Your task to perform on an android device: all mails in gmail Image 0: 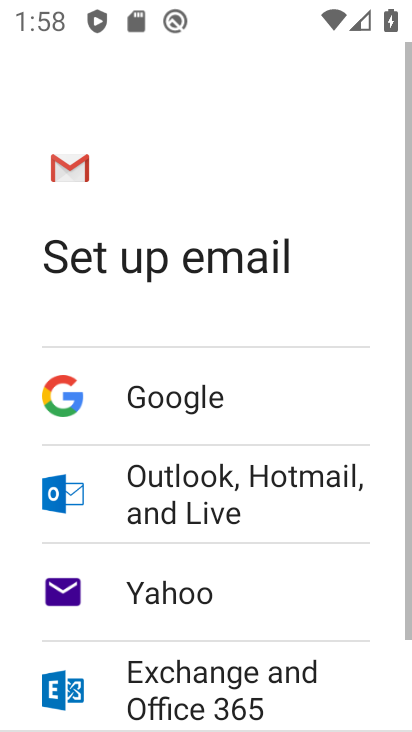
Step 0: press home button
Your task to perform on an android device: all mails in gmail Image 1: 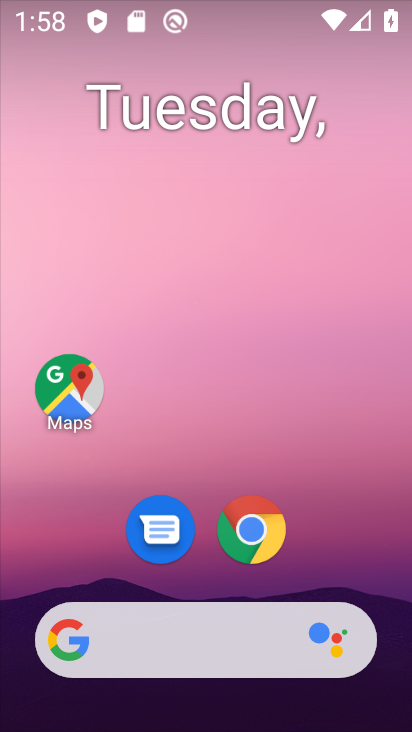
Step 1: drag from (207, 538) to (221, 4)
Your task to perform on an android device: all mails in gmail Image 2: 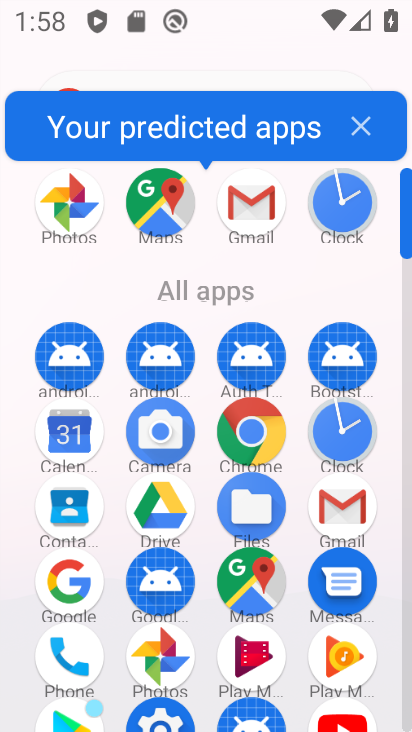
Step 2: click (344, 505)
Your task to perform on an android device: all mails in gmail Image 3: 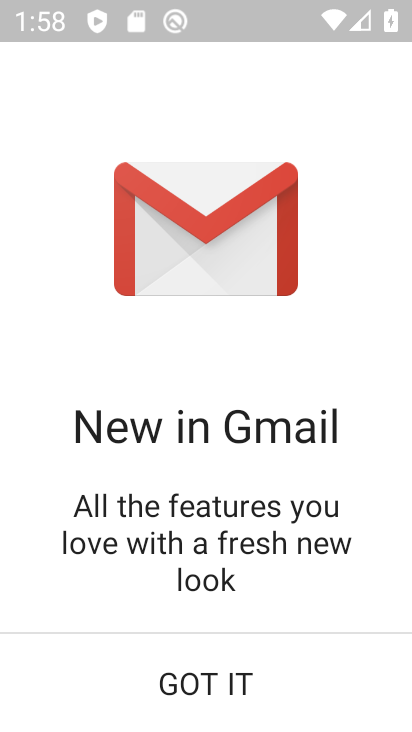
Step 3: click (221, 663)
Your task to perform on an android device: all mails in gmail Image 4: 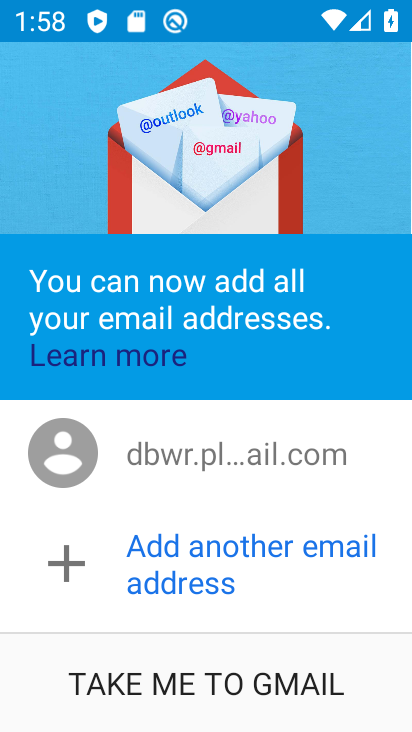
Step 4: click (146, 680)
Your task to perform on an android device: all mails in gmail Image 5: 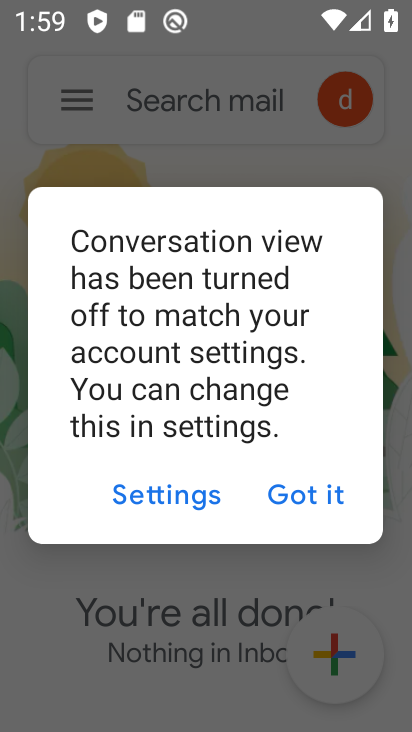
Step 5: click (270, 498)
Your task to perform on an android device: all mails in gmail Image 6: 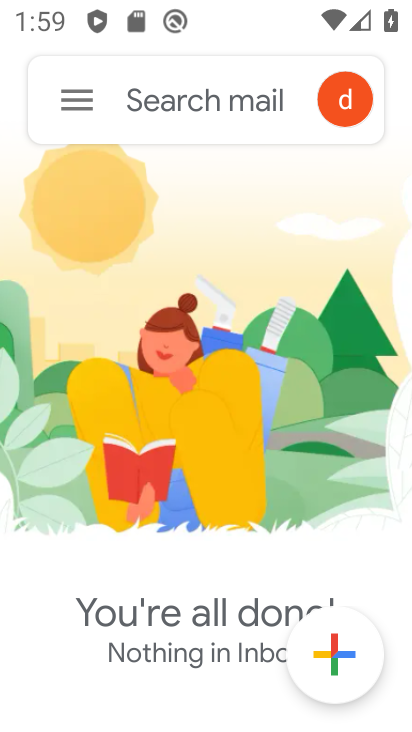
Step 6: click (75, 100)
Your task to perform on an android device: all mails in gmail Image 7: 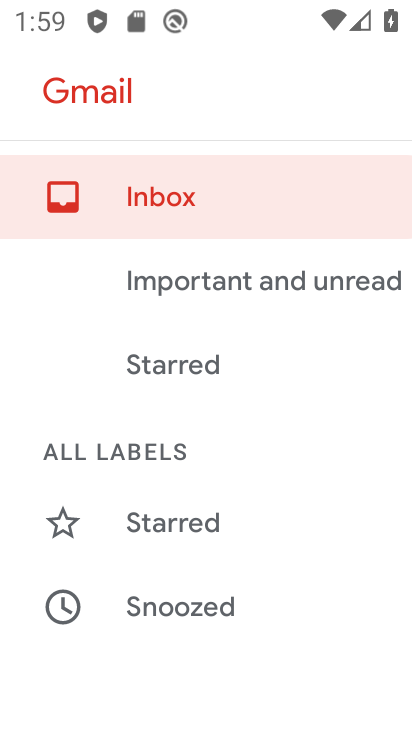
Step 7: drag from (195, 600) to (252, 186)
Your task to perform on an android device: all mails in gmail Image 8: 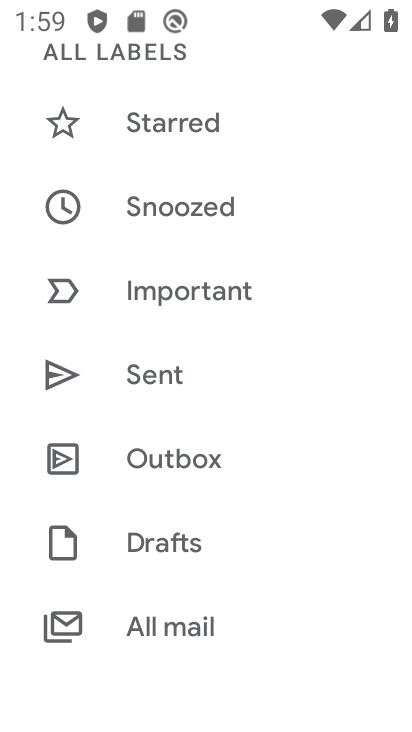
Step 8: click (173, 620)
Your task to perform on an android device: all mails in gmail Image 9: 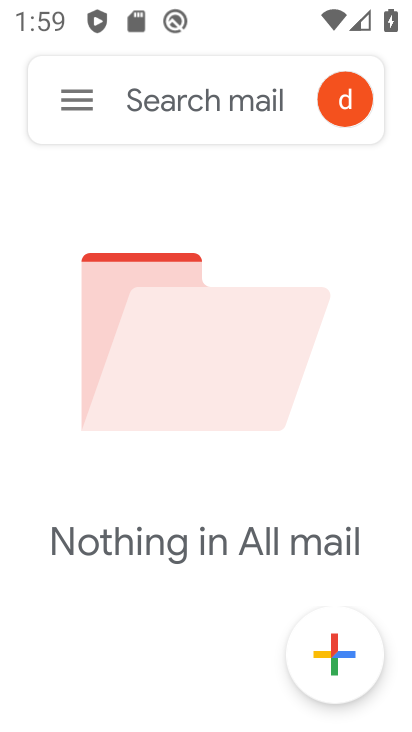
Step 9: task complete